Your task to perform on an android device: turn on javascript in the chrome app Image 0: 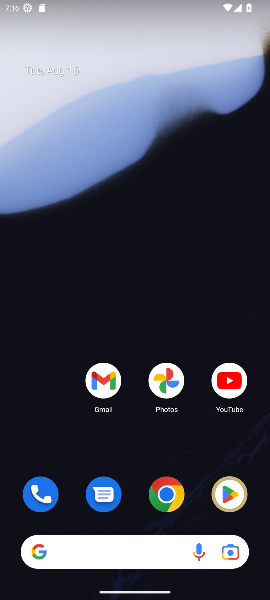
Step 0: drag from (62, 433) to (64, 205)
Your task to perform on an android device: turn on javascript in the chrome app Image 1: 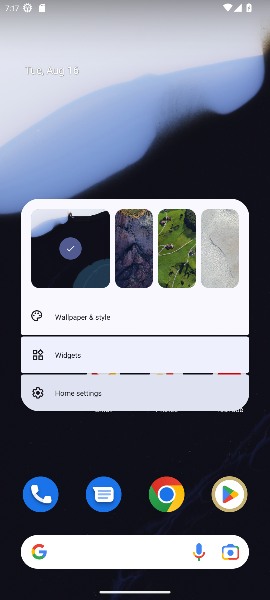
Step 1: click (218, 480)
Your task to perform on an android device: turn on javascript in the chrome app Image 2: 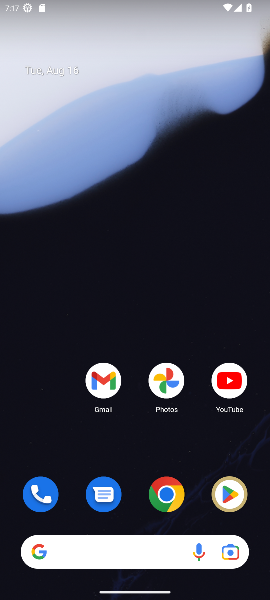
Step 2: click (169, 486)
Your task to perform on an android device: turn on javascript in the chrome app Image 3: 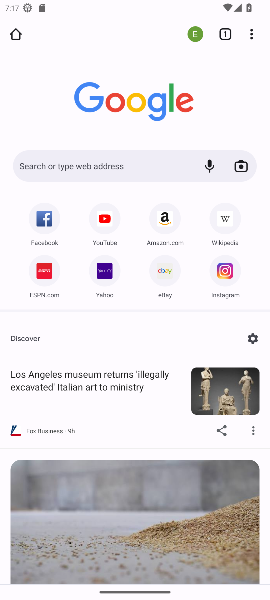
Step 3: task complete